Your task to perform on an android device: Open the Play Movies app and select the watchlist tab. Image 0: 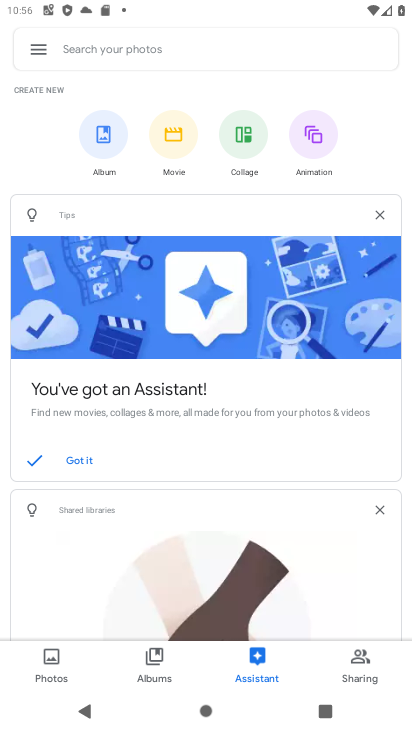
Step 0: press home button
Your task to perform on an android device: Open the Play Movies app and select the watchlist tab. Image 1: 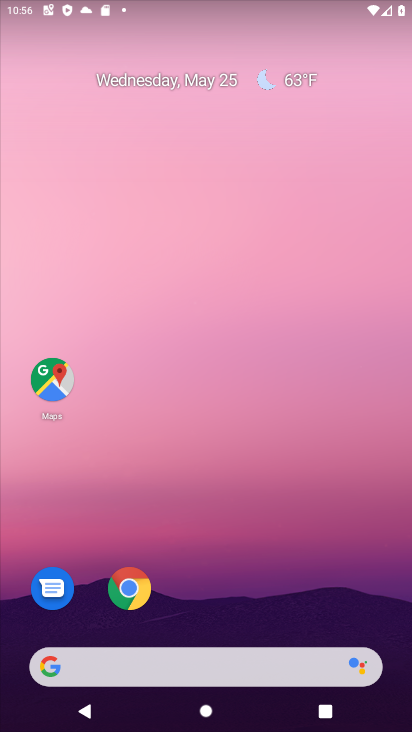
Step 1: drag from (248, 649) to (342, 182)
Your task to perform on an android device: Open the Play Movies app and select the watchlist tab. Image 2: 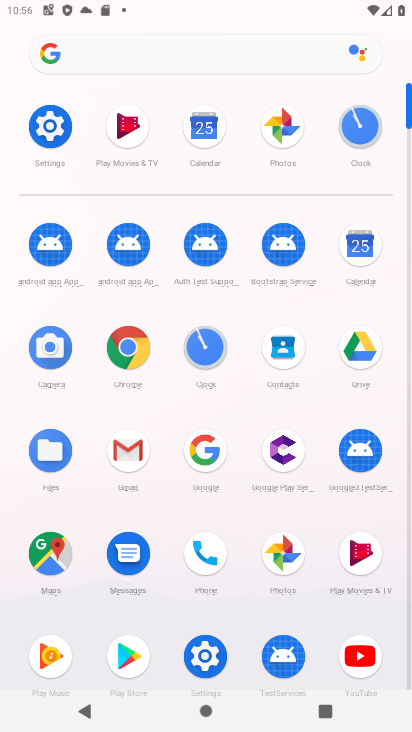
Step 2: click (355, 548)
Your task to perform on an android device: Open the Play Movies app and select the watchlist tab. Image 3: 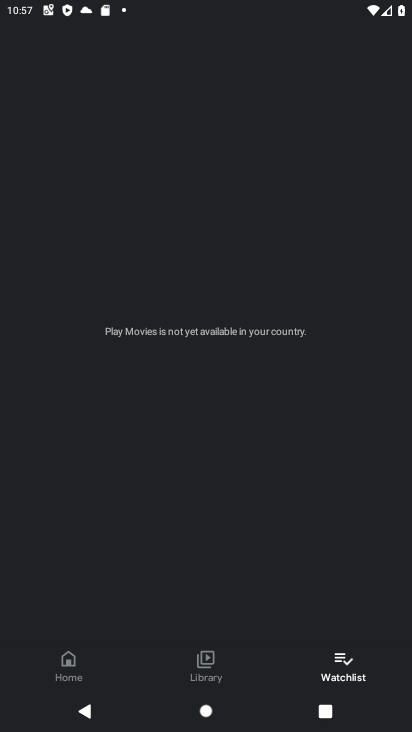
Step 3: task complete